Your task to perform on an android device: Go to Amazon Image 0: 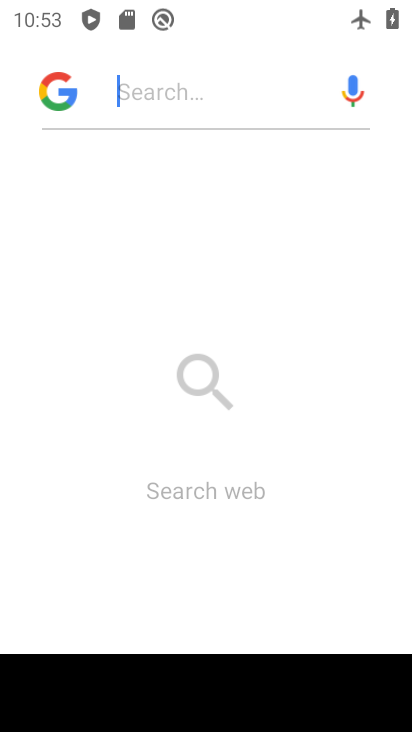
Step 0: press home button
Your task to perform on an android device: Go to Amazon Image 1: 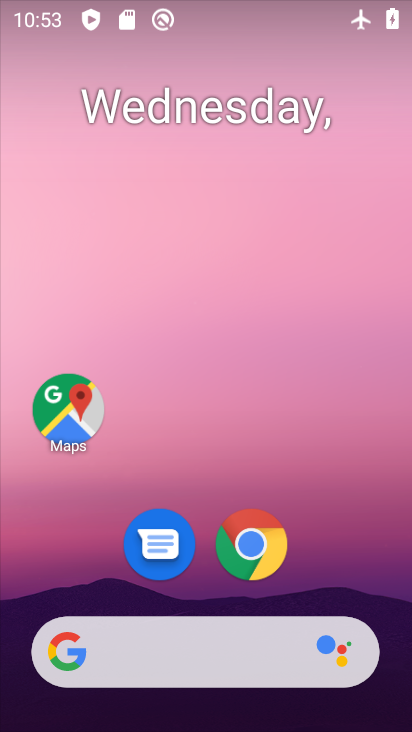
Step 1: click (253, 534)
Your task to perform on an android device: Go to Amazon Image 2: 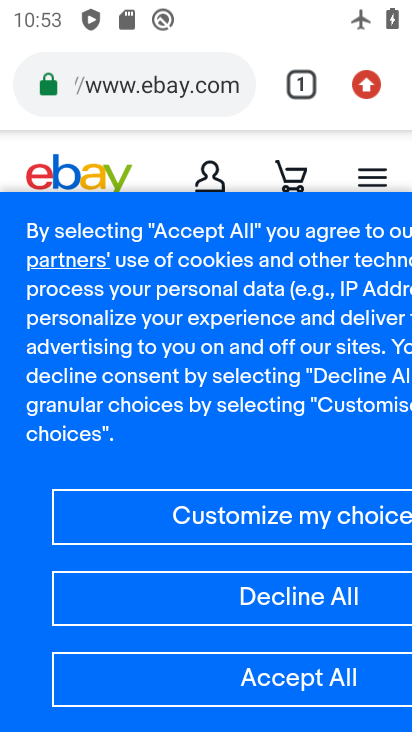
Step 2: click (300, 81)
Your task to perform on an android device: Go to Amazon Image 3: 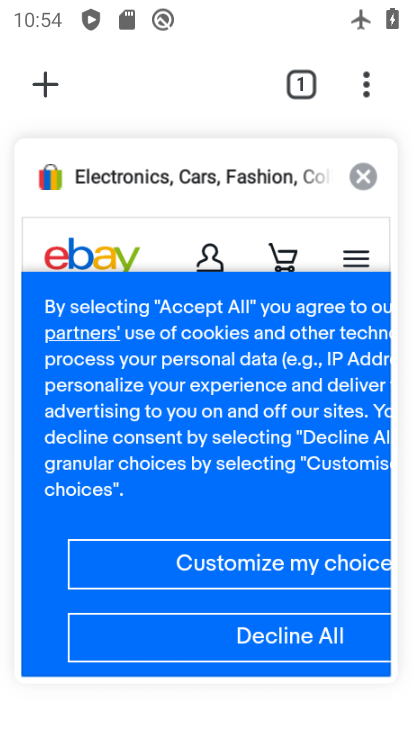
Step 3: click (42, 92)
Your task to perform on an android device: Go to Amazon Image 4: 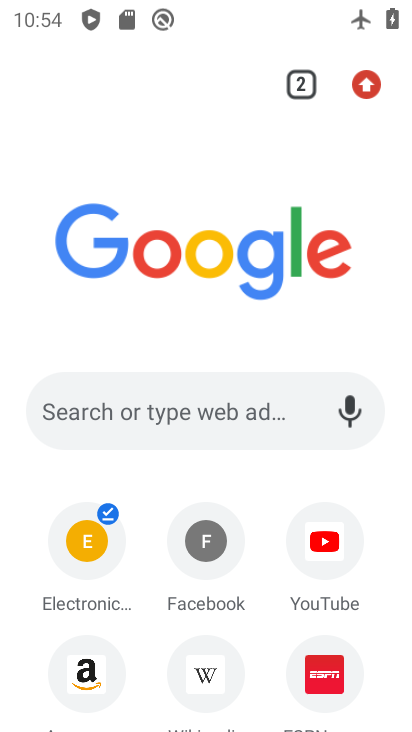
Step 4: click (89, 673)
Your task to perform on an android device: Go to Amazon Image 5: 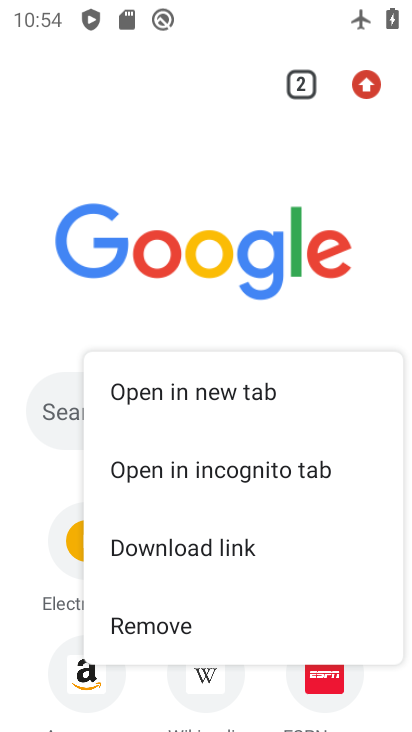
Step 5: click (67, 662)
Your task to perform on an android device: Go to Amazon Image 6: 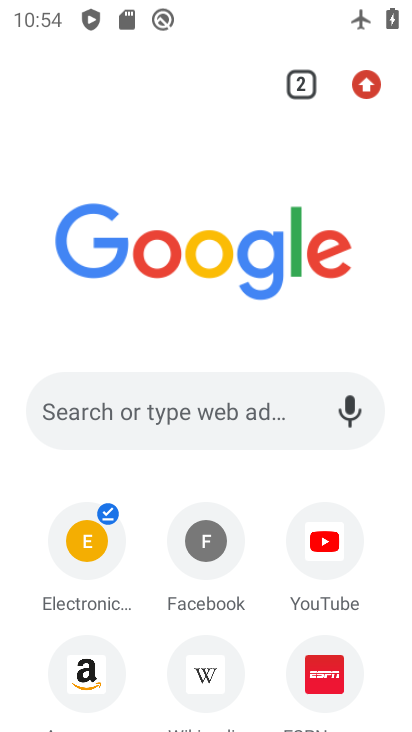
Step 6: click (98, 668)
Your task to perform on an android device: Go to Amazon Image 7: 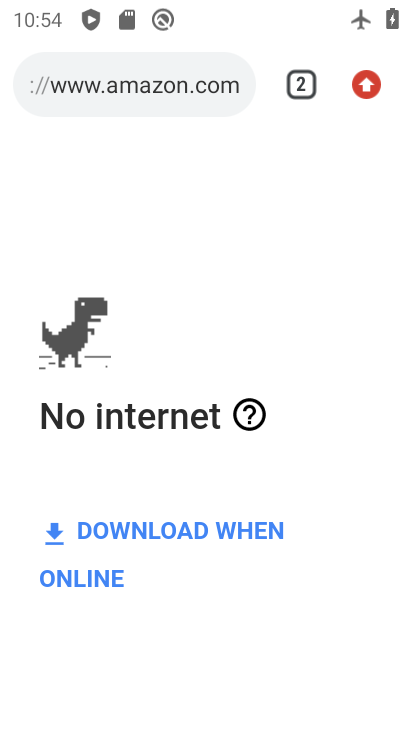
Step 7: task complete